Your task to perform on an android device: Go to battery settings Image 0: 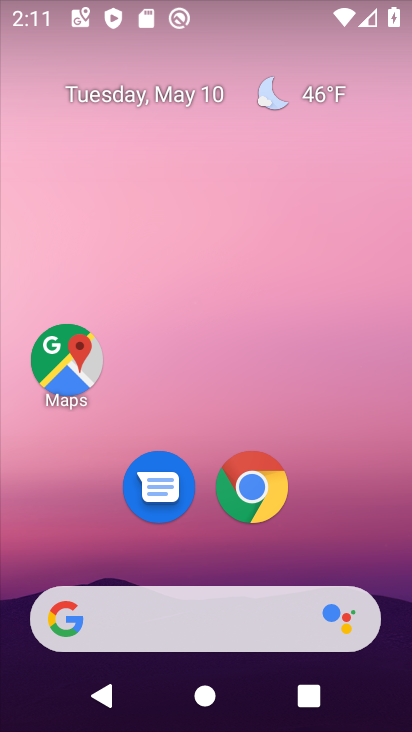
Step 0: drag from (315, 530) to (298, 136)
Your task to perform on an android device: Go to battery settings Image 1: 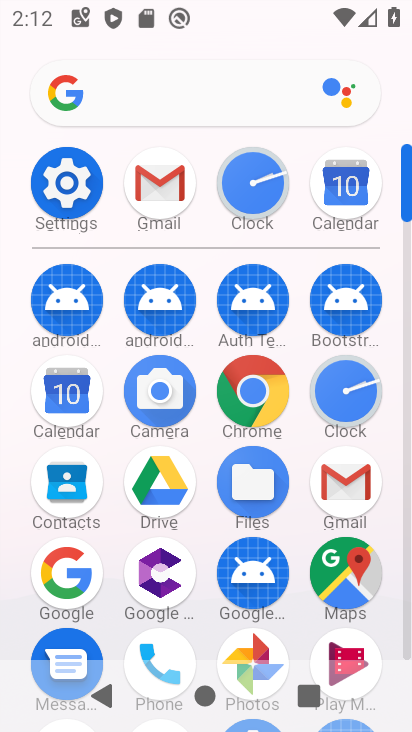
Step 1: drag from (210, 524) to (246, 219)
Your task to perform on an android device: Go to battery settings Image 2: 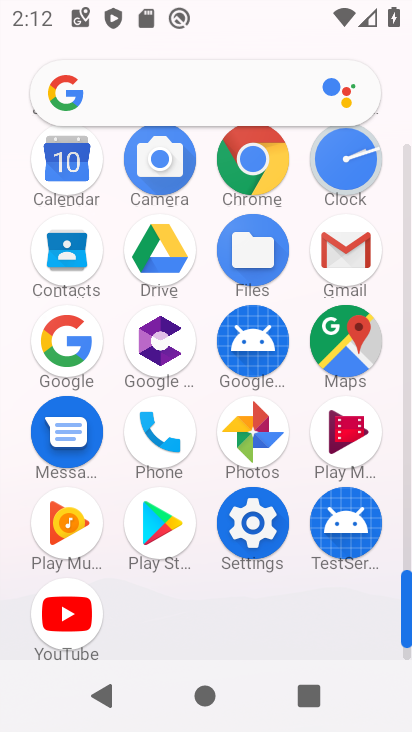
Step 2: click (252, 539)
Your task to perform on an android device: Go to battery settings Image 3: 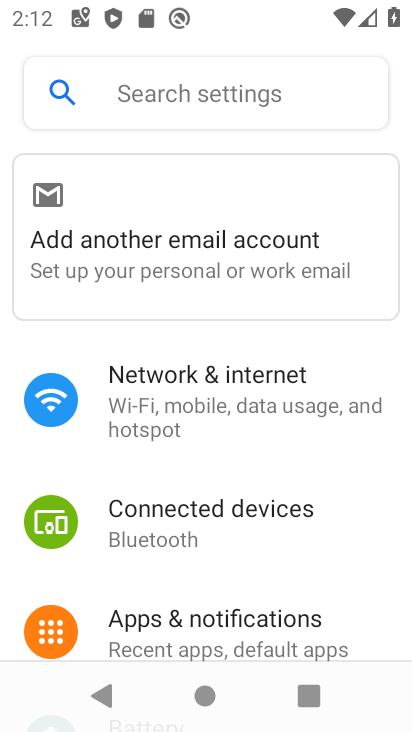
Step 3: drag from (295, 594) to (273, 227)
Your task to perform on an android device: Go to battery settings Image 4: 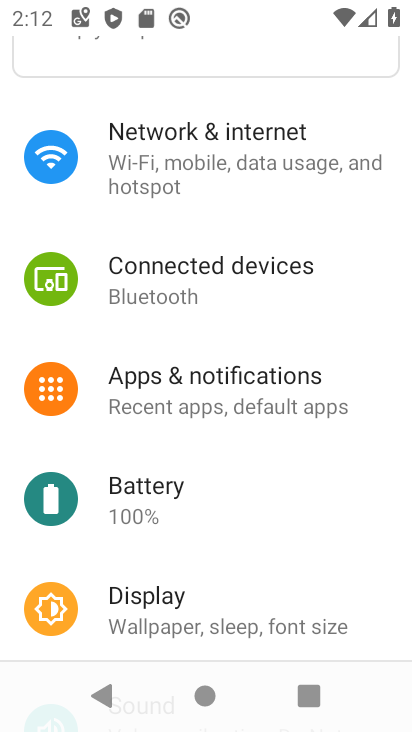
Step 4: click (133, 483)
Your task to perform on an android device: Go to battery settings Image 5: 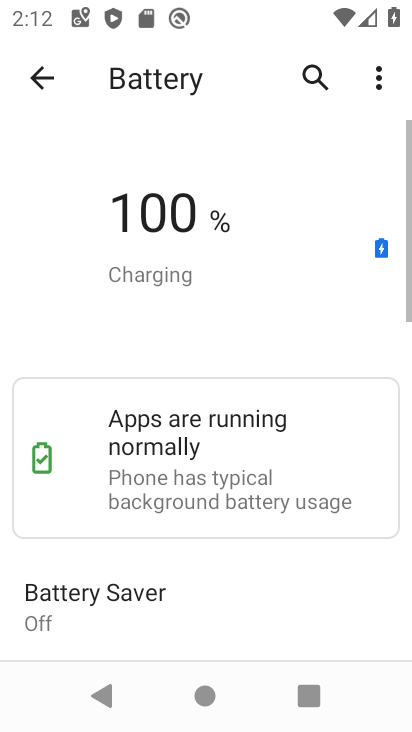
Step 5: task complete